Your task to perform on an android device: Go to ESPN.com Image 0: 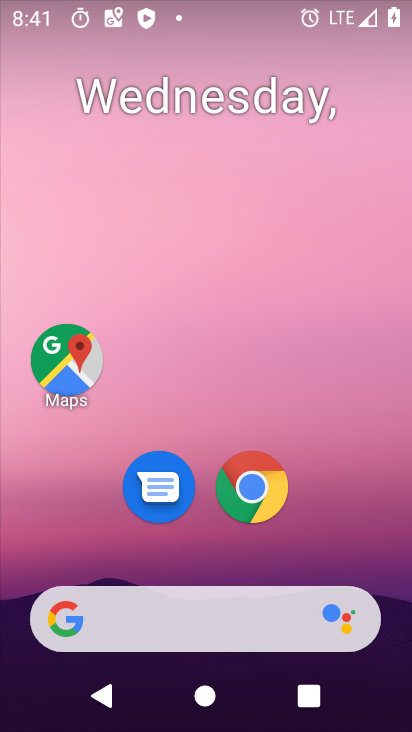
Step 0: click (257, 492)
Your task to perform on an android device: Go to ESPN.com Image 1: 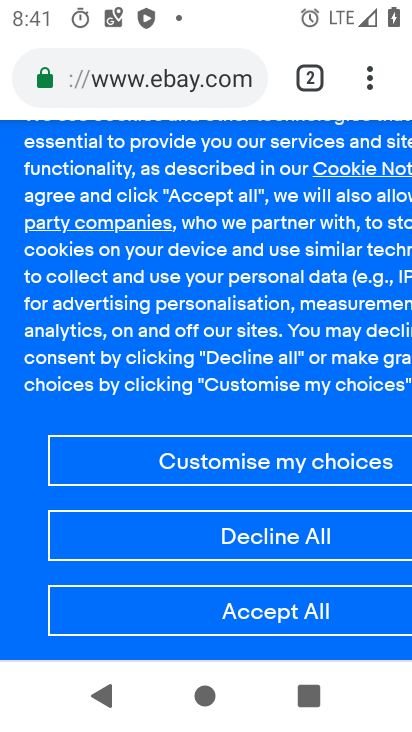
Step 1: click (115, 84)
Your task to perform on an android device: Go to ESPN.com Image 2: 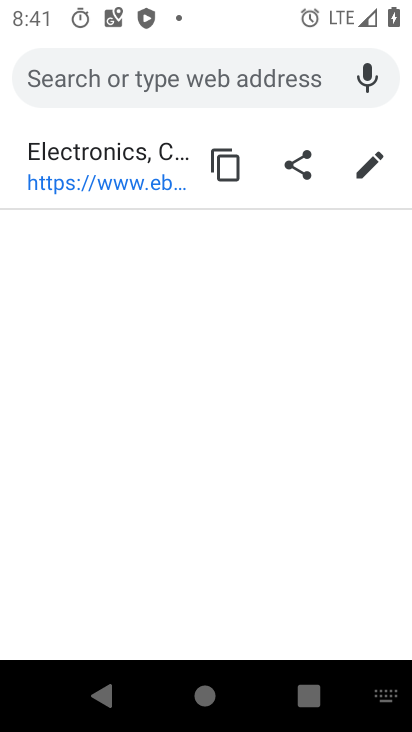
Step 2: type "espn.com"
Your task to perform on an android device: Go to ESPN.com Image 3: 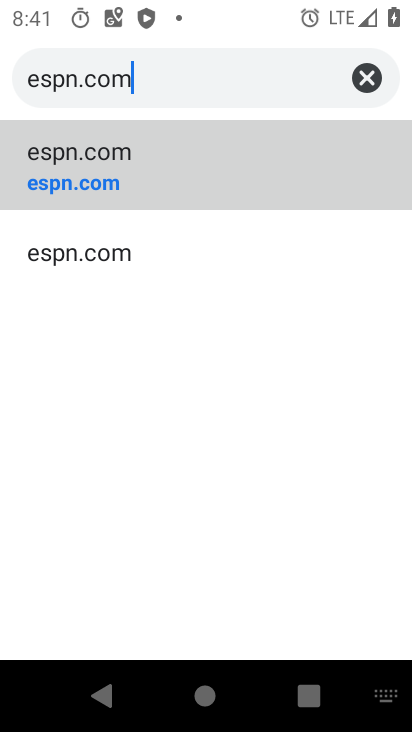
Step 3: click (88, 171)
Your task to perform on an android device: Go to ESPN.com Image 4: 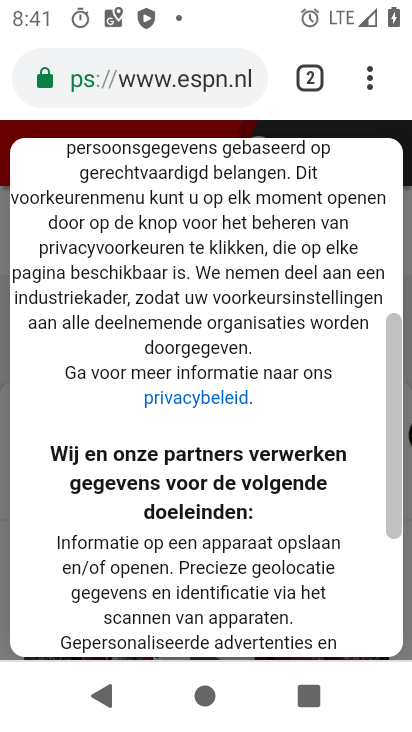
Step 4: task complete